Your task to perform on an android device: add a contact Image 0: 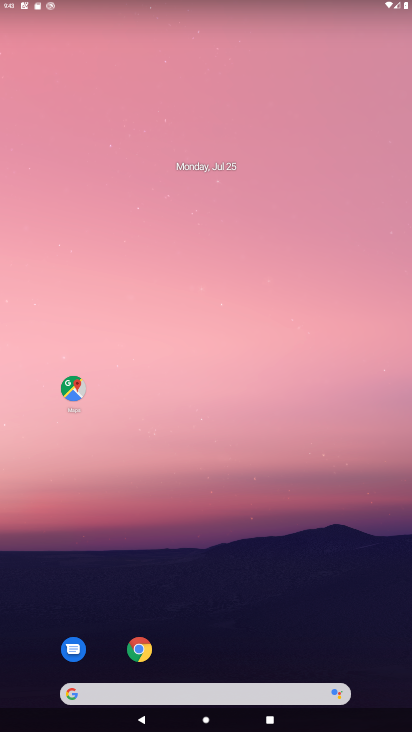
Step 0: drag from (187, 667) to (140, 2)
Your task to perform on an android device: add a contact Image 1: 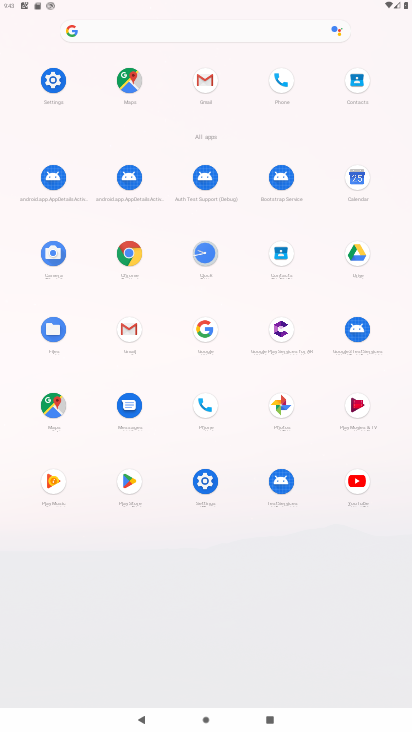
Step 1: click (286, 250)
Your task to perform on an android device: add a contact Image 2: 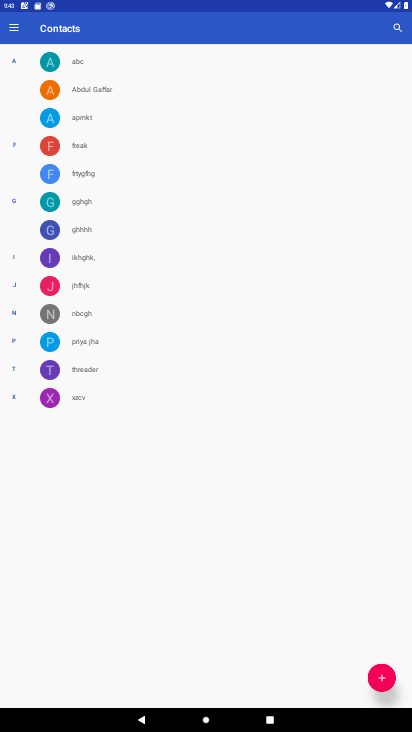
Step 2: click (369, 676)
Your task to perform on an android device: add a contact Image 3: 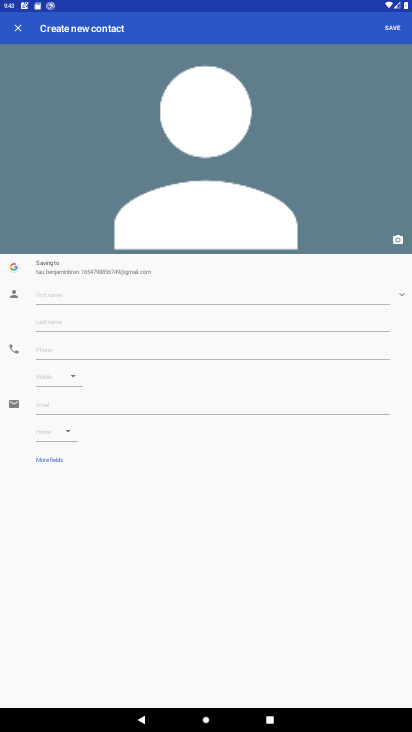
Step 3: click (108, 291)
Your task to perform on an android device: add a contact Image 4: 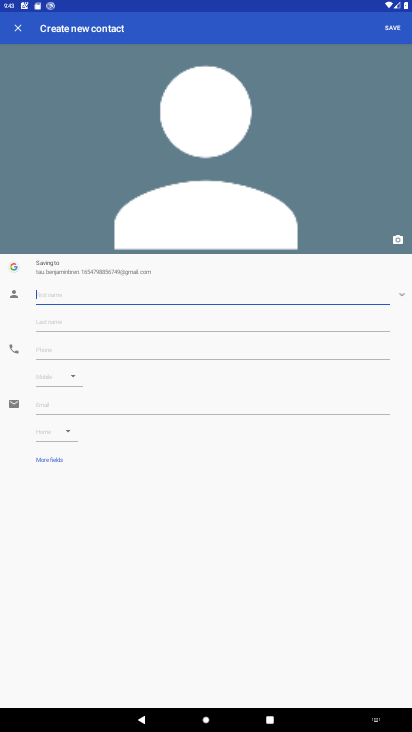
Step 4: type "freai"
Your task to perform on an android device: add a contact Image 5: 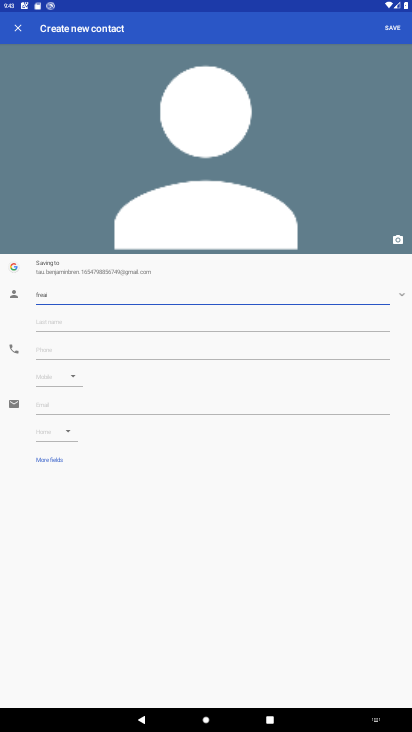
Step 5: click (379, 19)
Your task to perform on an android device: add a contact Image 6: 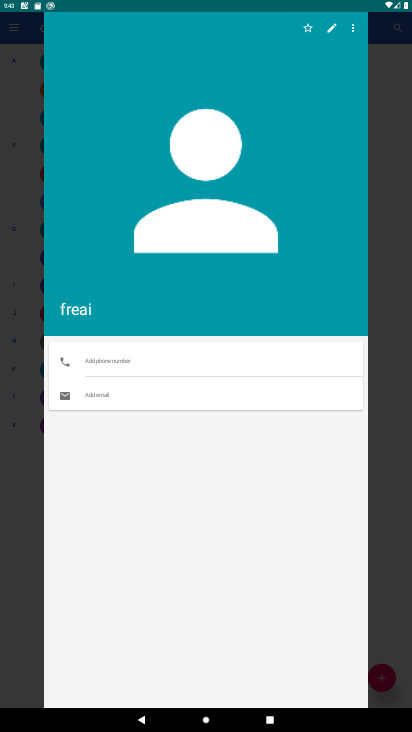
Step 6: task complete